Your task to perform on an android device: Open the map Image 0: 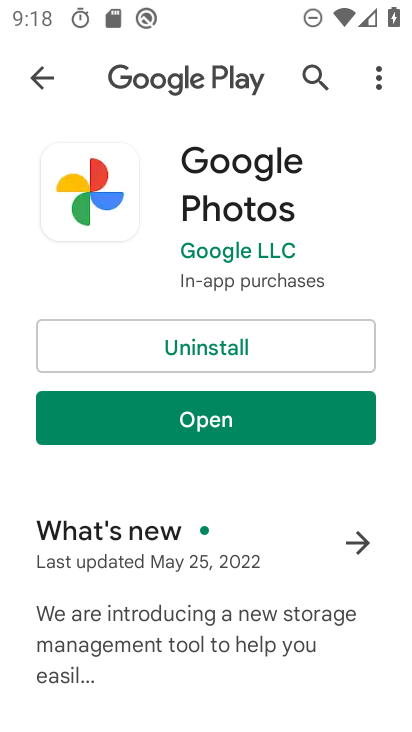
Step 0: press home button
Your task to perform on an android device: Open the map Image 1: 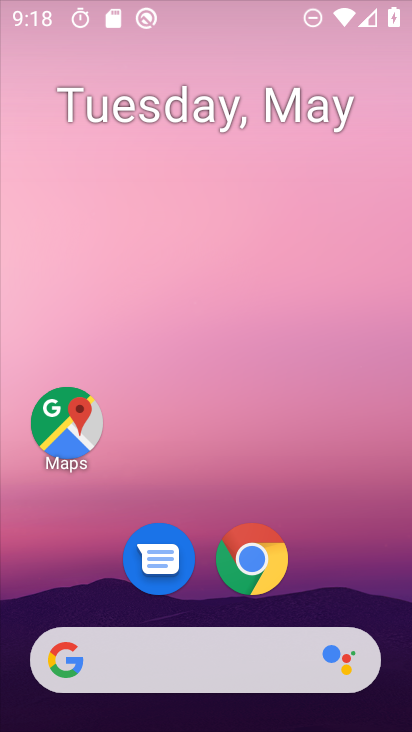
Step 1: drag from (393, 648) to (302, 83)
Your task to perform on an android device: Open the map Image 2: 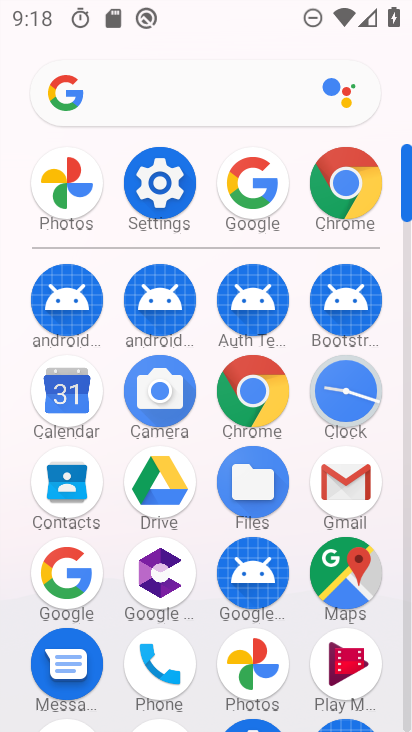
Step 2: click (352, 595)
Your task to perform on an android device: Open the map Image 3: 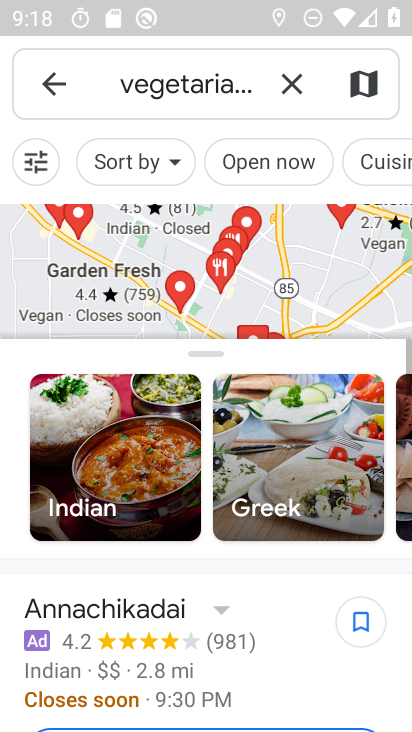
Step 3: click (296, 79)
Your task to perform on an android device: Open the map Image 4: 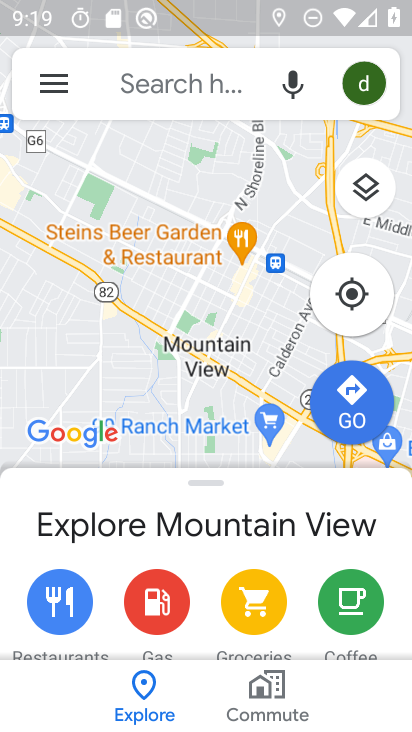
Step 4: task complete